Your task to perform on an android device: Clear all items from cart on amazon. Search for "dell xps" on amazon, select the first entry, and add it to the cart. Image 0: 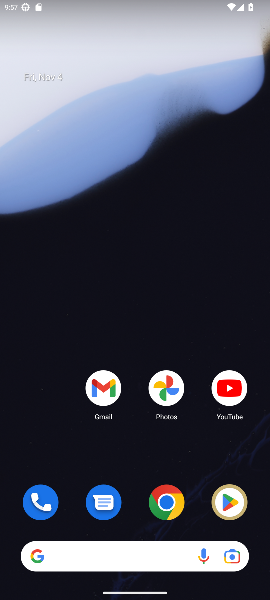
Step 0: click (165, 504)
Your task to perform on an android device: Clear all items from cart on amazon. Search for "dell xps" on amazon, select the first entry, and add it to the cart. Image 1: 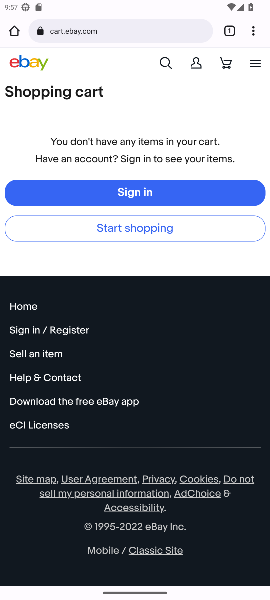
Step 1: click (120, 26)
Your task to perform on an android device: Clear all items from cart on amazon. Search for "dell xps" on amazon, select the first entry, and add it to the cart. Image 2: 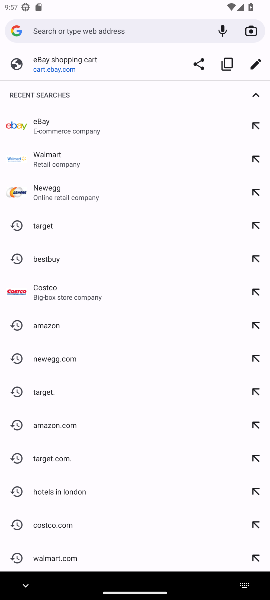
Step 2: click (47, 327)
Your task to perform on an android device: Clear all items from cart on amazon. Search for "dell xps" on amazon, select the first entry, and add it to the cart. Image 3: 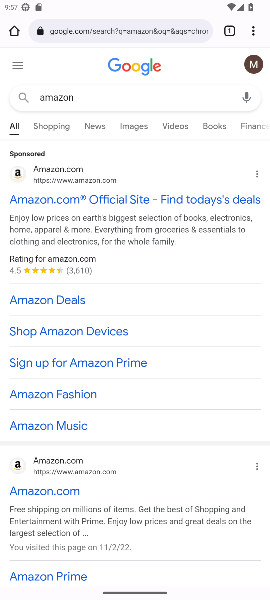
Step 3: click (84, 177)
Your task to perform on an android device: Clear all items from cart on amazon. Search for "dell xps" on amazon, select the first entry, and add it to the cart. Image 4: 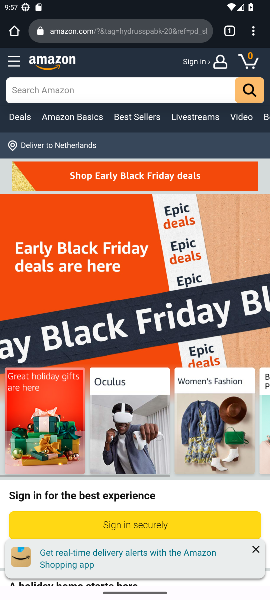
Step 4: click (145, 87)
Your task to perform on an android device: Clear all items from cart on amazon. Search for "dell xps" on amazon, select the first entry, and add it to the cart. Image 5: 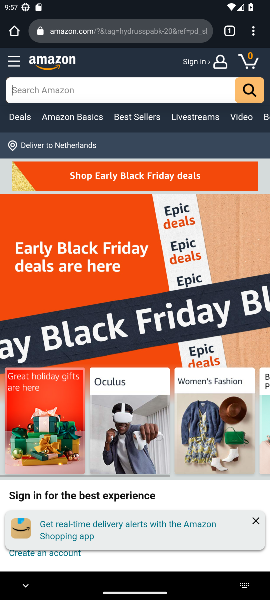
Step 5: type "dell xps"
Your task to perform on an android device: Clear all items from cart on amazon. Search for "dell xps" on amazon, select the first entry, and add it to the cart. Image 6: 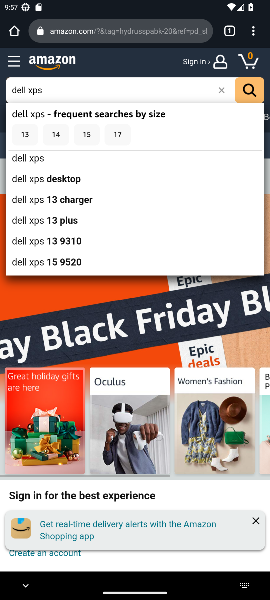
Step 6: click (36, 159)
Your task to perform on an android device: Clear all items from cart on amazon. Search for "dell xps" on amazon, select the first entry, and add it to the cart. Image 7: 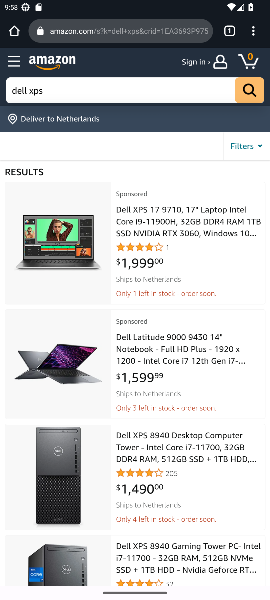
Step 7: click (62, 247)
Your task to perform on an android device: Clear all items from cart on amazon. Search for "dell xps" on amazon, select the first entry, and add it to the cart. Image 8: 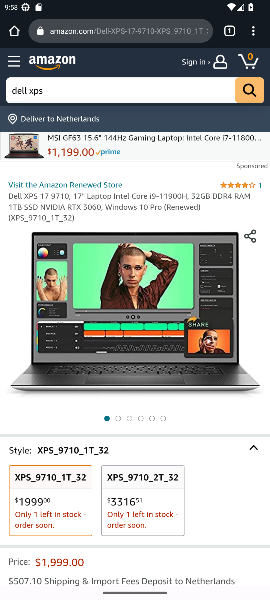
Step 8: drag from (230, 456) to (195, 148)
Your task to perform on an android device: Clear all items from cart on amazon. Search for "dell xps" on amazon, select the first entry, and add it to the cart. Image 9: 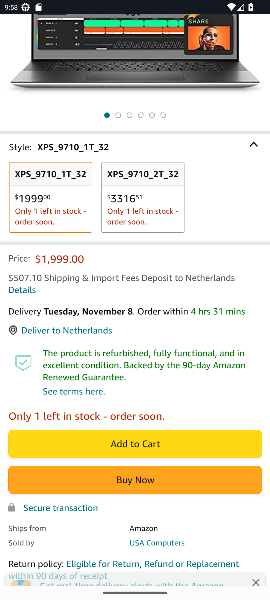
Step 9: click (122, 441)
Your task to perform on an android device: Clear all items from cart on amazon. Search for "dell xps" on amazon, select the first entry, and add it to the cart. Image 10: 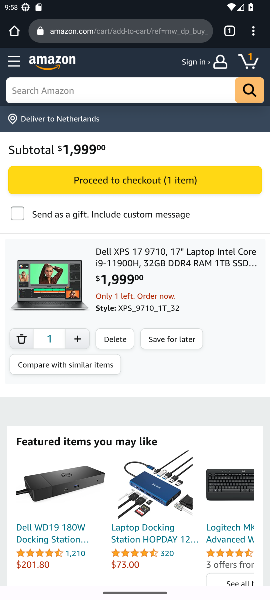
Step 10: task complete